Your task to perform on an android device: Go to internet settings Image 0: 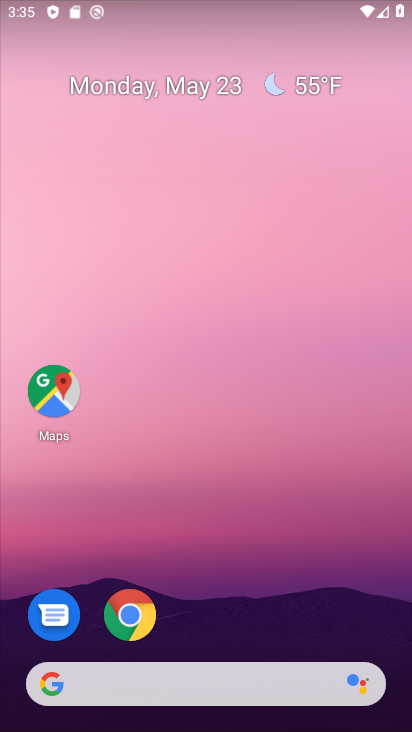
Step 0: drag from (377, 633) to (350, 236)
Your task to perform on an android device: Go to internet settings Image 1: 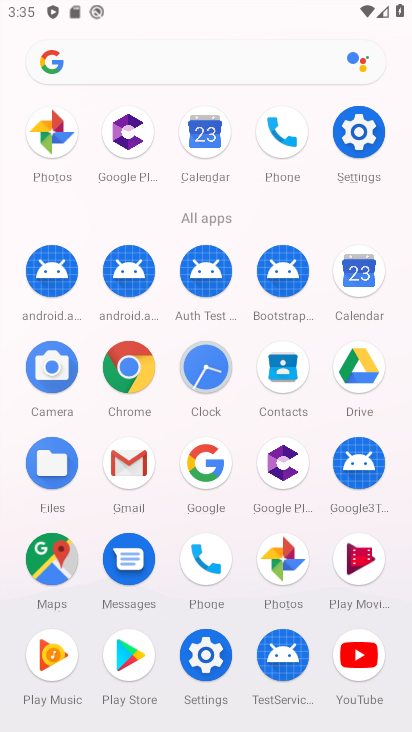
Step 1: click (358, 139)
Your task to perform on an android device: Go to internet settings Image 2: 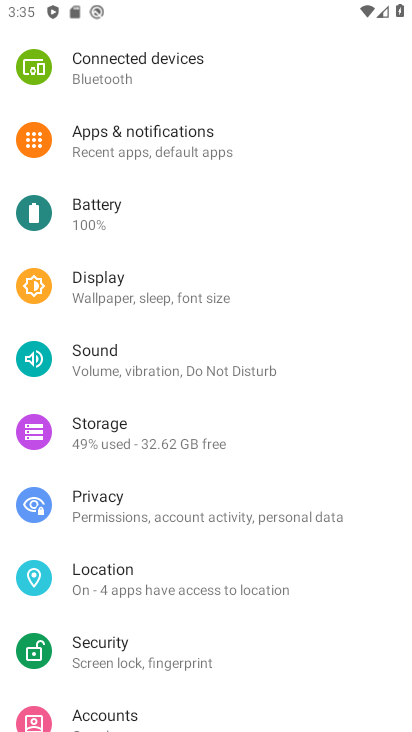
Step 2: drag from (369, 300) to (347, 466)
Your task to perform on an android device: Go to internet settings Image 3: 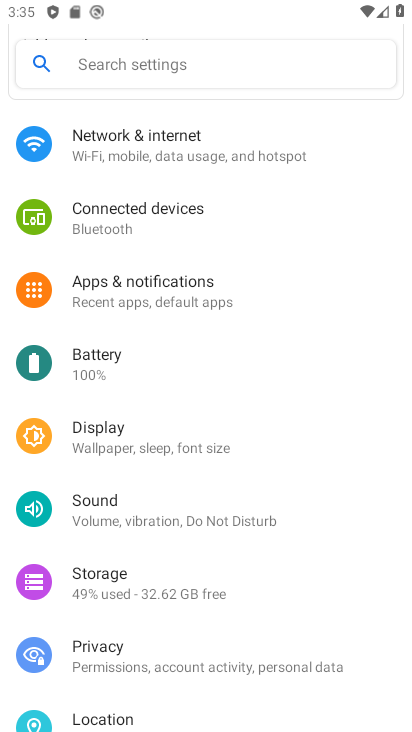
Step 3: drag from (350, 212) to (340, 464)
Your task to perform on an android device: Go to internet settings Image 4: 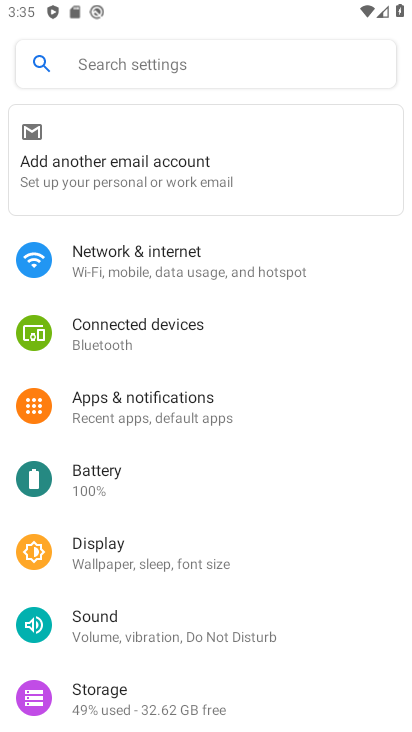
Step 4: drag from (356, 532) to (342, 365)
Your task to perform on an android device: Go to internet settings Image 5: 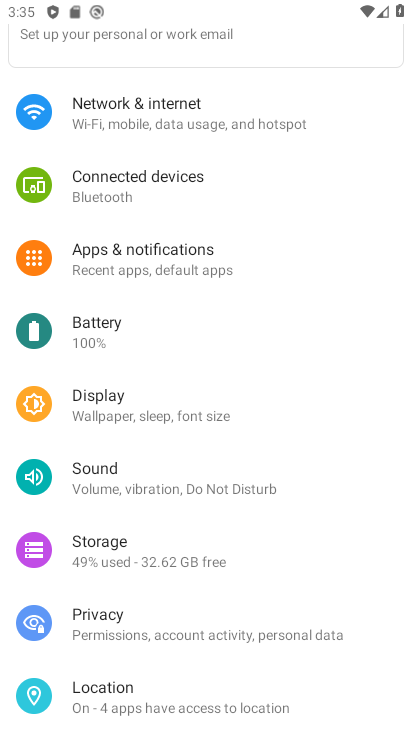
Step 5: drag from (343, 578) to (350, 453)
Your task to perform on an android device: Go to internet settings Image 6: 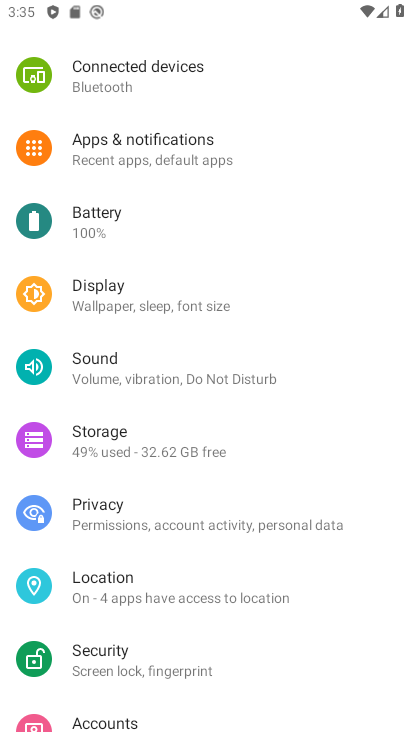
Step 6: drag from (345, 619) to (347, 446)
Your task to perform on an android device: Go to internet settings Image 7: 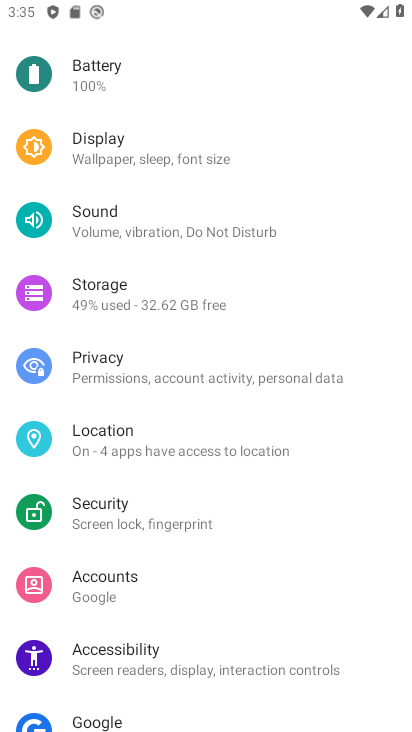
Step 7: drag from (341, 610) to (333, 403)
Your task to perform on an android device: Go to internet settings Image 8: 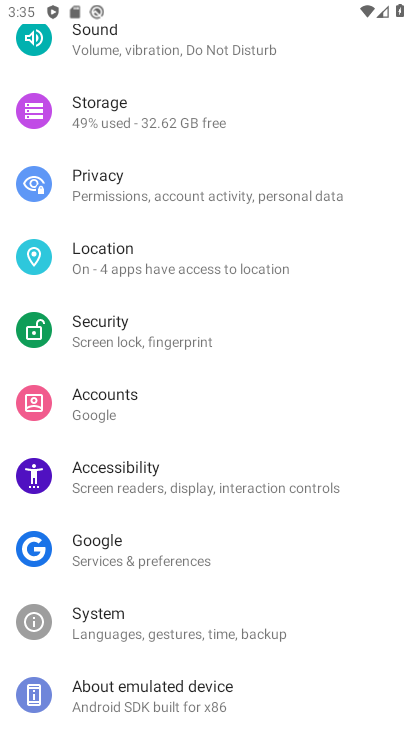
Step 8: drag from (332, 591) to (330, 440)
Your task to perform on an android device: Go to internet settings Image 9: 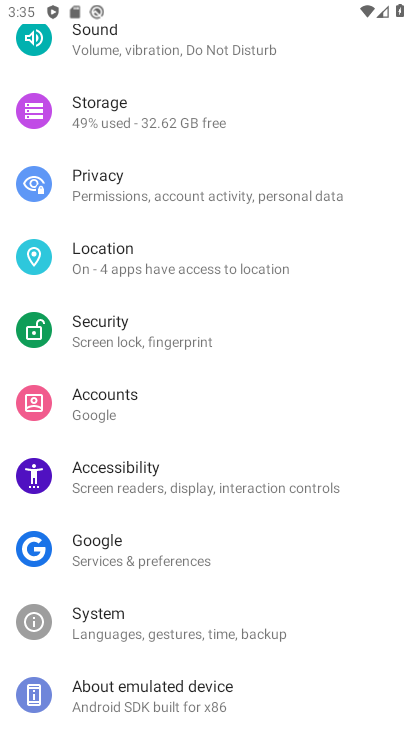
Step 9: drag from (331, 361) to (316, 473)
Your task to perform on an android device: Go to internet settings Image 10: 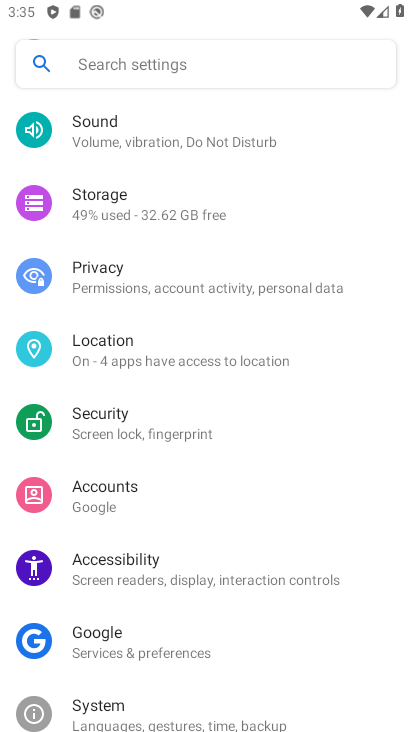
Step 10: drag from (338, 236) to (334, 397)
Your task to perform on an android device: Go to internet settings Image 11: 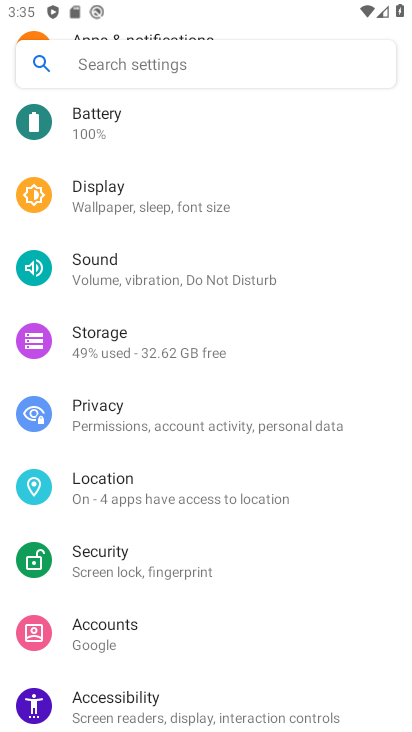
Step 11: drag from (343, 229) to (330, 410)
Your task to perform on an android device: Go to internet settings Image 12: 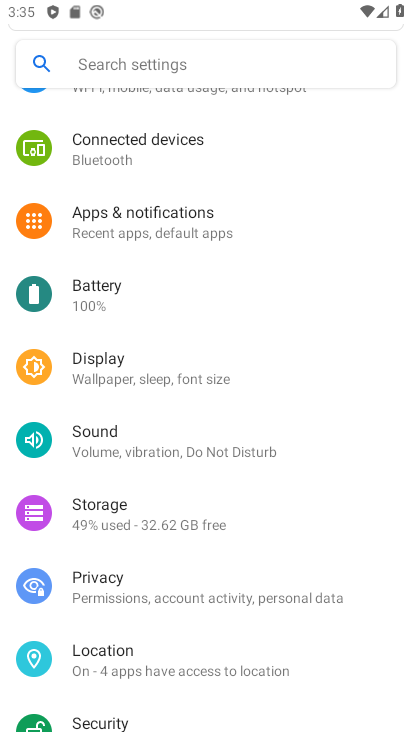
Step 12: drag from (333, 204) to (325, 360)
Your task to perform on an android device: Go to internet settings Image 13: 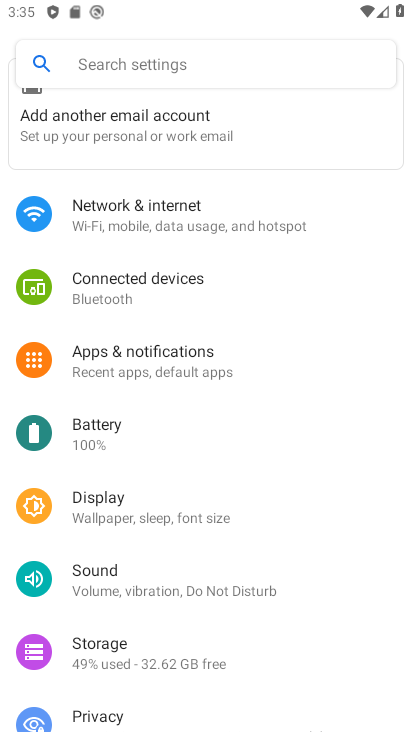
Step 13: drag from (334, 177) to (323, 385)
Your task to perform on an android device: Go to internet settings Image 14: 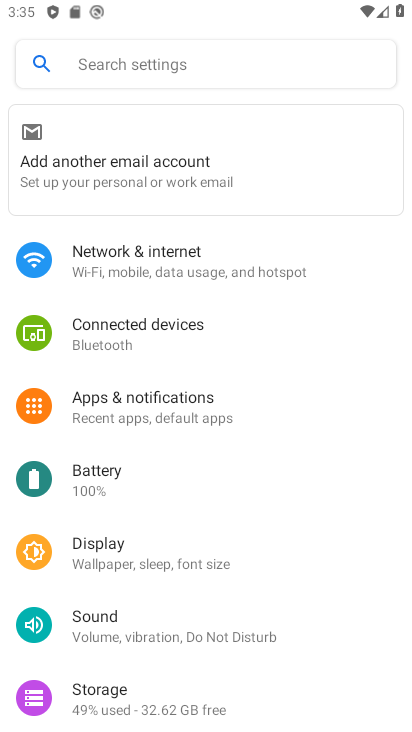
Step 14: click (237, 263)
Your task to perform on an android device: Go to internet settings Image 15: 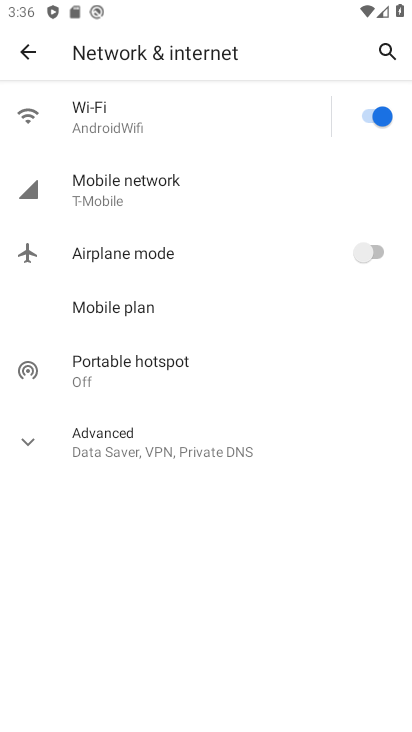
Step 15: task complete